Your task to perform on an android device: change the clock display to show seconds Image 0: 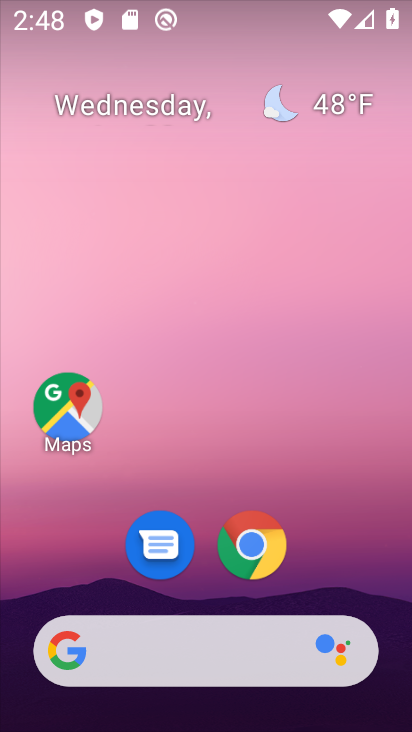
Step 0: drag from (304, 594) to (325, 148)
Your task to perform on an android device: change the clock display to show seconds Image 1: 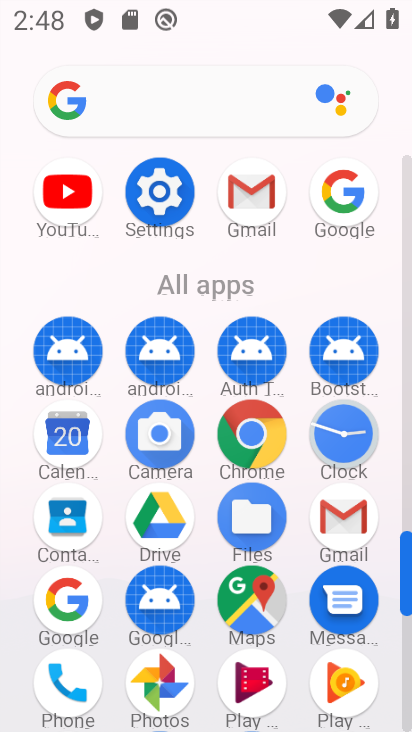
Step 1: click (336, 441)
Your task to perform on an android device: change the clock display to show seconds Image 2: 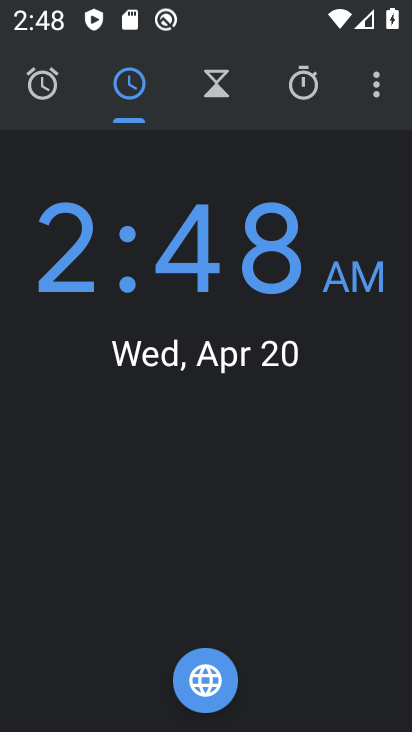
Step 2: click (367, 88)
Your task to perform on an android device: change the clock display to show seconds Image 3: 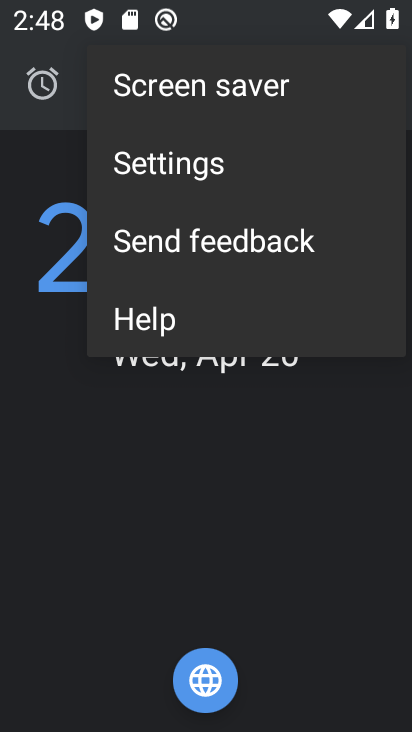
Step 3: click (183, 167)
Your task to perform on an android device: change the clock display to show seconds Image 4: 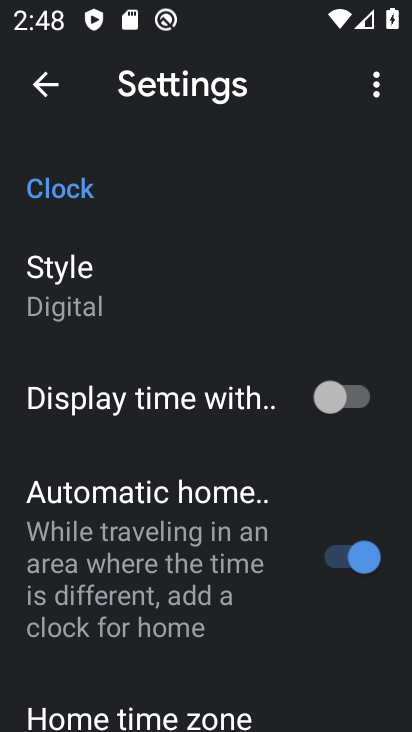
Step 4: click (343, 413)
Your task to perform on an android device: change the clock display to show seconds Image 5: 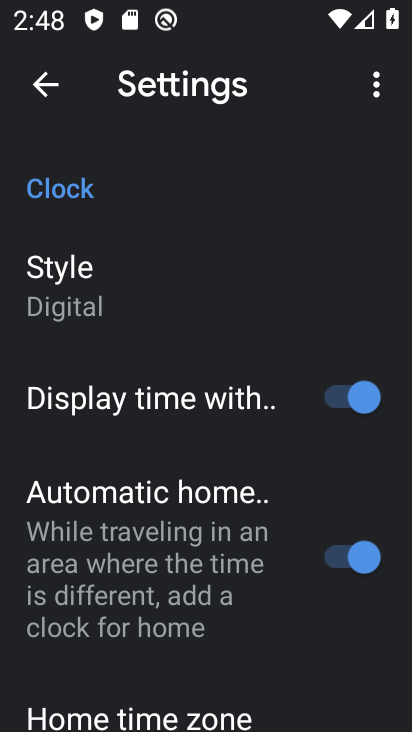
Step 5: task complete